Your task to perform on an android device: turn smart compose on in the gmail app Image 0: 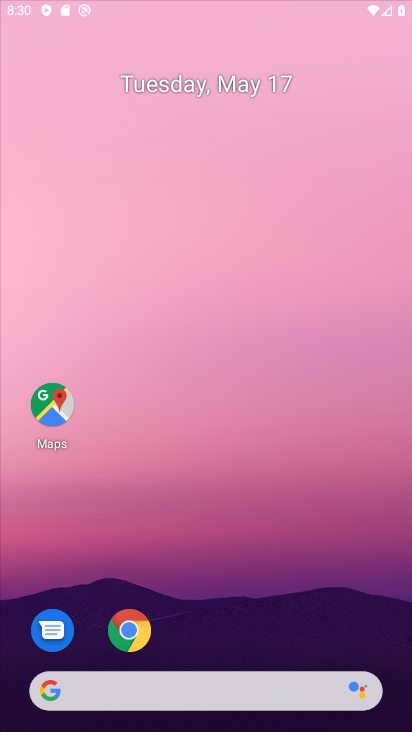
Step 0: drag from (273, 632) to (177, 193)
Your task to perform on an android device: turn smart compose on in the gmail app Image 1: 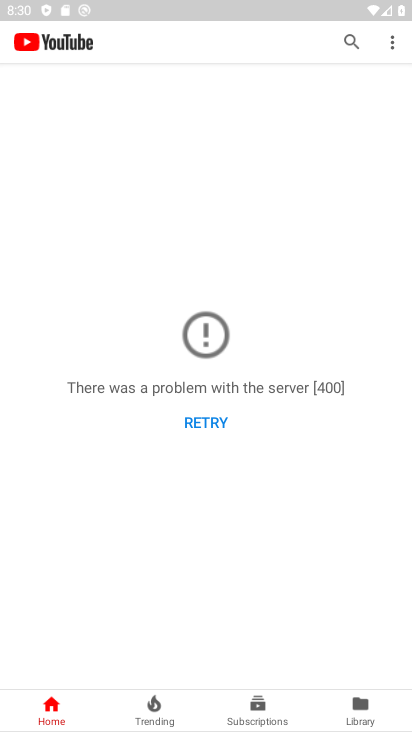
Step 1: press home button
Your task to perform on an android device: turn smart compose on in the gmail app Image 2: 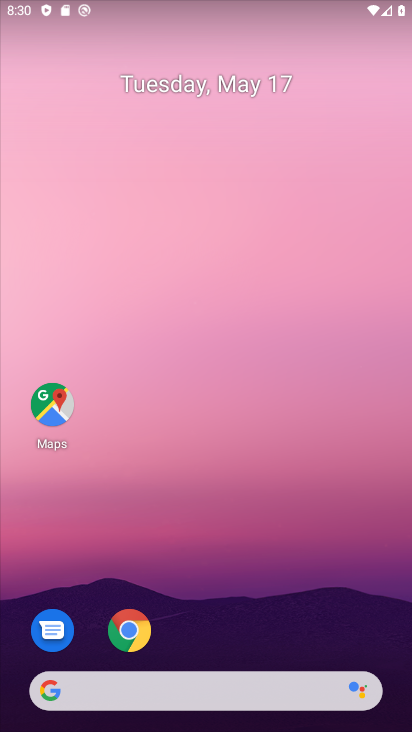
Step 2: drag from (188, 637) to (163, 124)
Your task to perform on an android device: turn smart compose on in the gmail app Image 3: 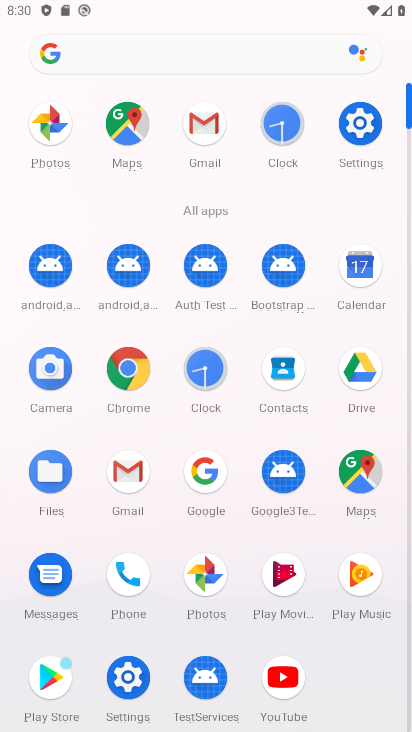
Step 3: click (197, 134)
Your task to perform on an android device: turn smart compose on in the gmail app Image 4: 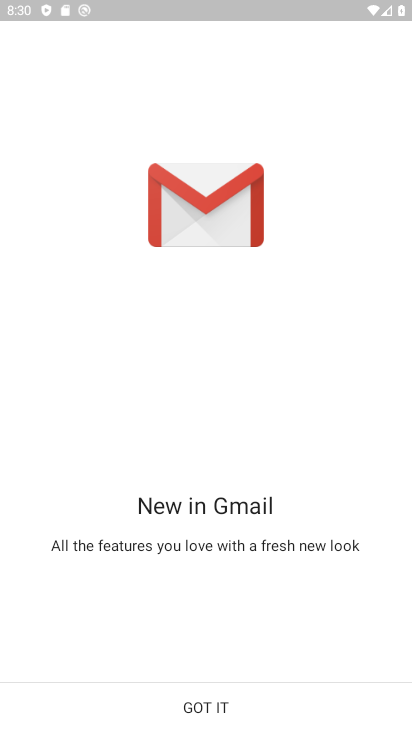
Step 4: click (198, 704)
Your task to perform on an android device: turn smart compose on in the gmail app Image 5: 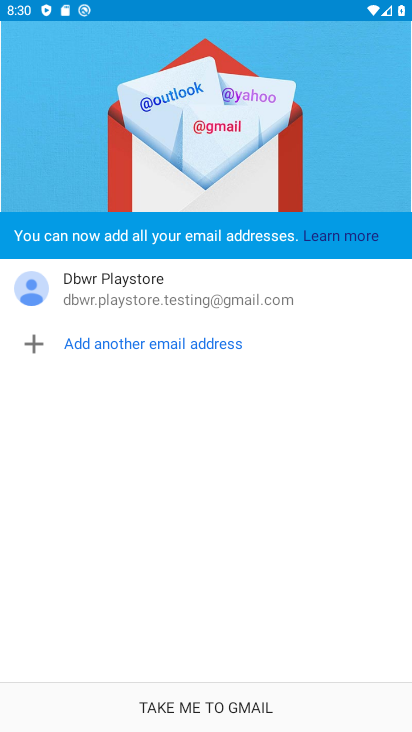
Step 5: click (205, 714)
Your task to perform on an android device: turn smart compose on in the gmail app Image 6: 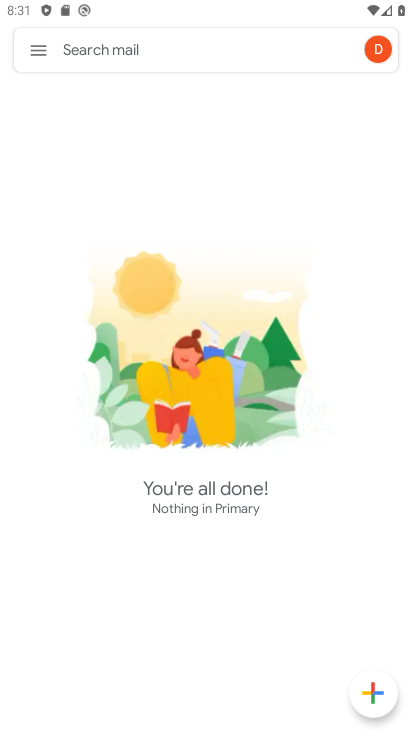
Step 6: click (42, 60)
Your task to perform on an android device: turn smart compose on in the gmail app Image 7: 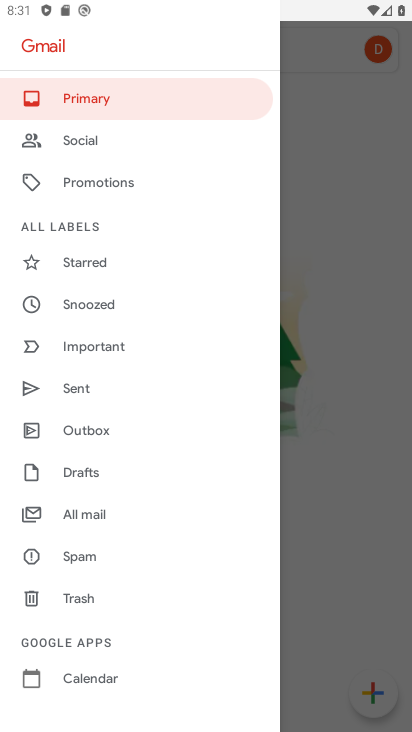
Step 7: drag from (106, 528) to (118, 287)
Your task to perform on an android device: turn smart compose on in the gmail app Image 8: 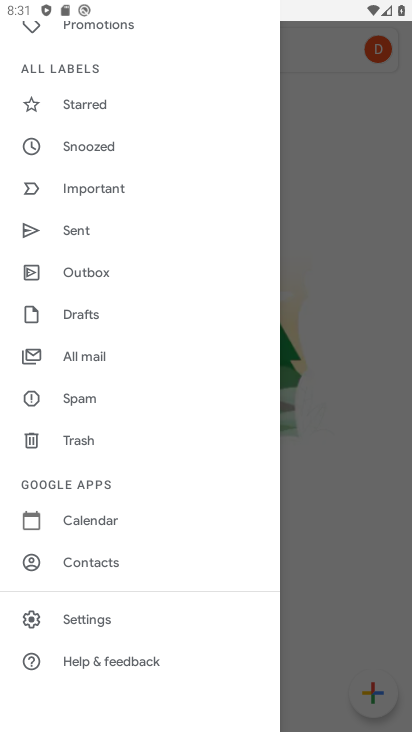
Step 8: click (84, 620)
Your task to perform on an android device: turn smart compose on in the gmail app Image 9: 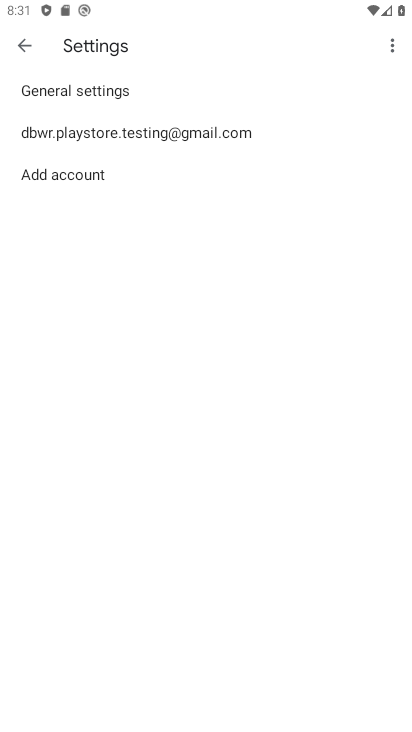
Step 9: click (140, 146)
Your task to perform on an android device: turn smart compose on in the gmail app Image 10: 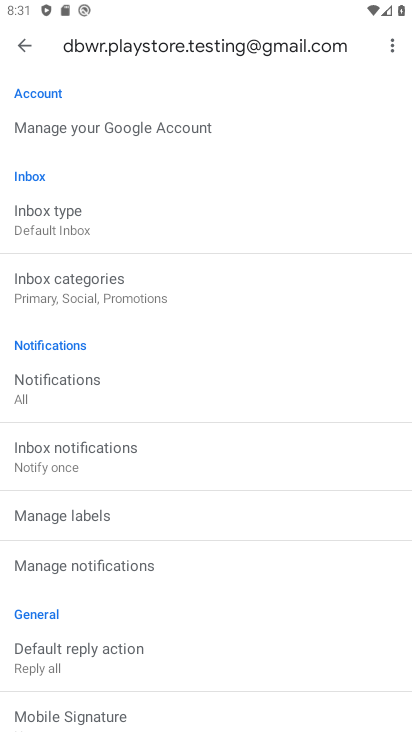
Step 10: task complete